Your task to perform on an android device: add a label to a message in the gmail app Image 0: 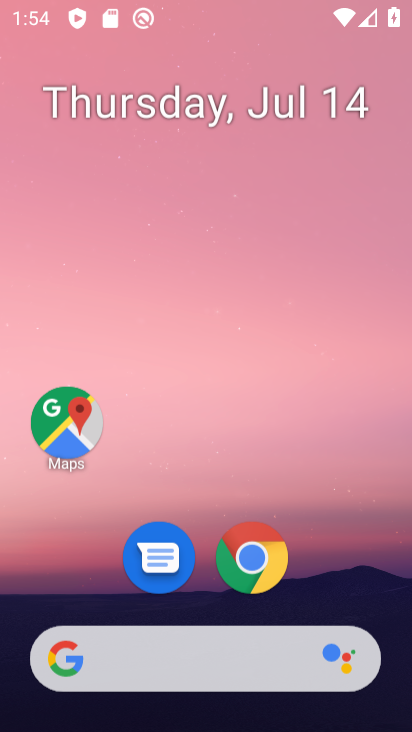
Step 0: click (299, 19)
Your task to perform on an android device: add a label to a message in the gmail app Image 1: 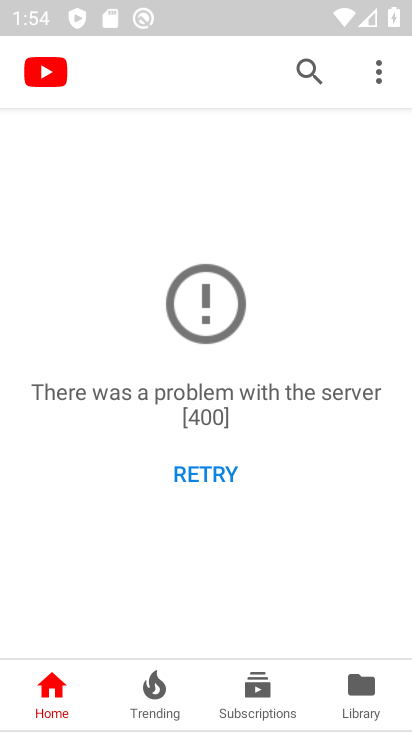
Step 1: press home button
Your task to perform on an android device: add a label to a message in the gmail app Image 2: 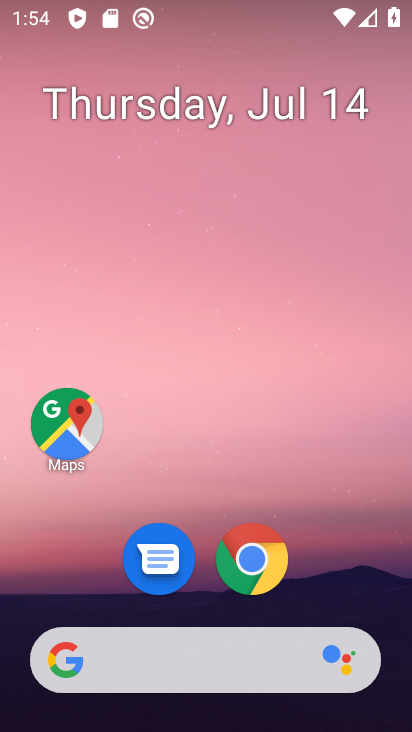
Step 2: drag from (249, 489) to (290, 54)
Your task to perform on an android device: add a label to a message in the gmail app Image 3: 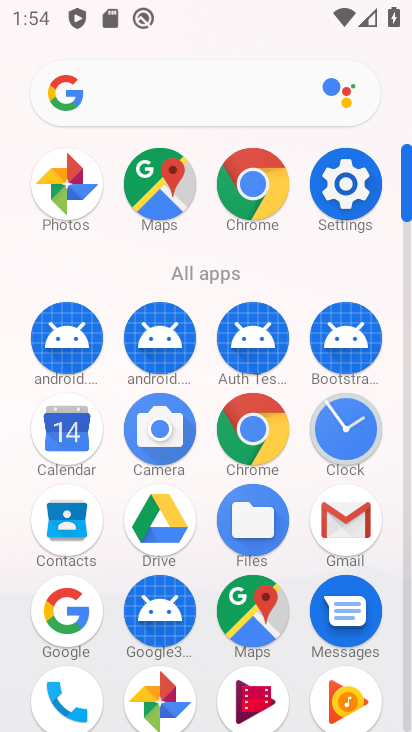
Step 3: click (351, 535)
Your task to perform on an android device: add a label to a message in the gmail app Image 4: 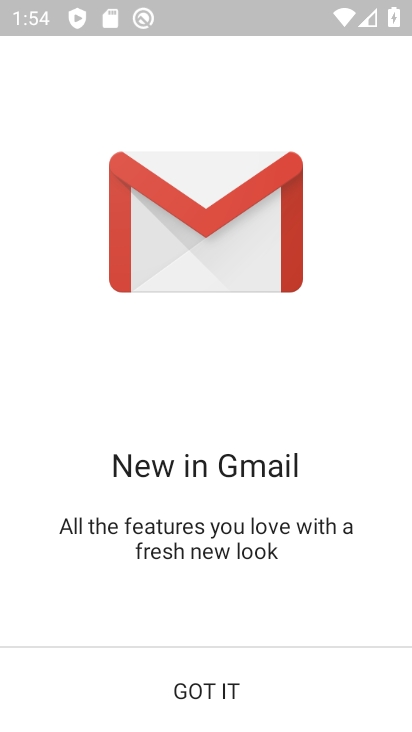
Step 4: click (244, 707)
Your task to perform on an android device: add a label to a message in the gmail app Image 5: 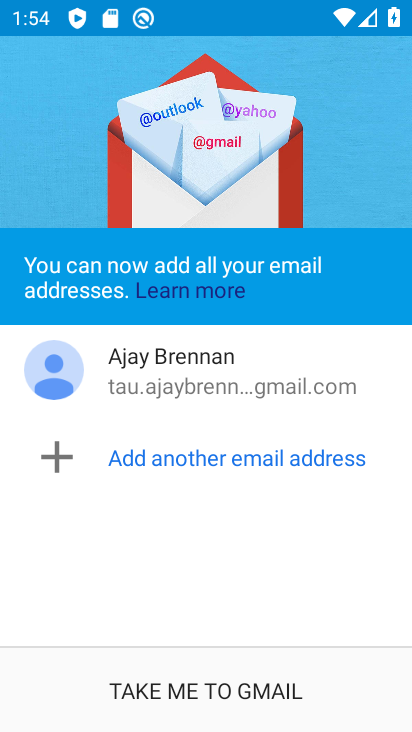
Step 5: click (244, 705)
Your task to perform on an android device: add a label to a message in the gmail app Image 6: 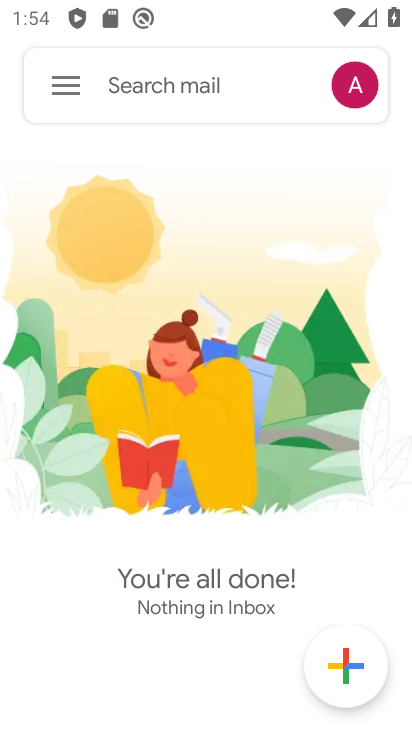
Step 6: click (60, 86)
Your task to perform on an android device: add a label to a message in the gmail app Image 7: 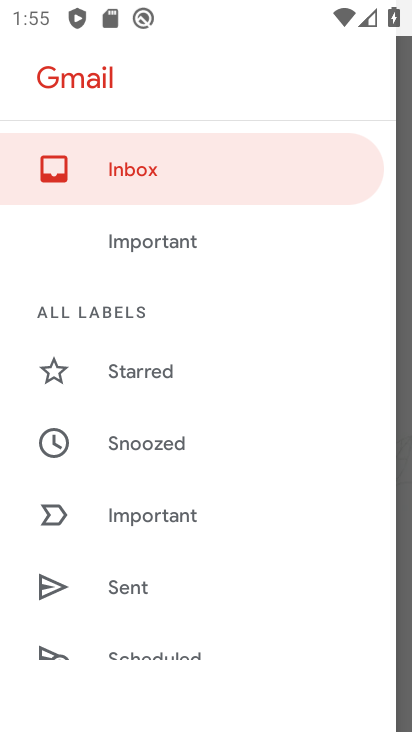
Step 7: drag from (172, 570) to (291, 193)
Your task to perform on an android device: add a label to a message in the gmail app Image 8: 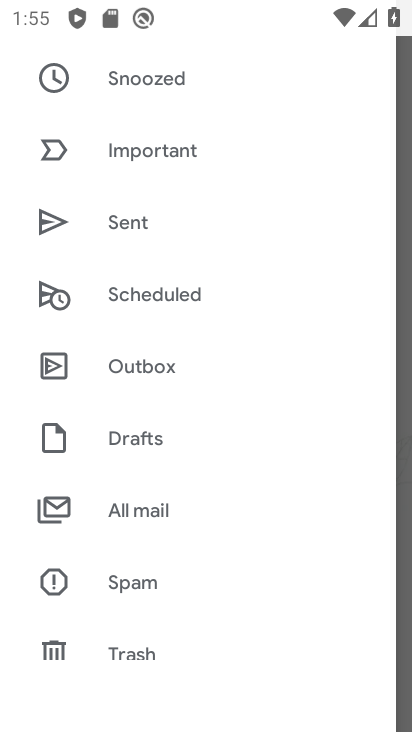
Step 8: drag from (192, 499) to (261, 207)
Your task to perform on an android device: add a label to a message in the gmail app Image 9: 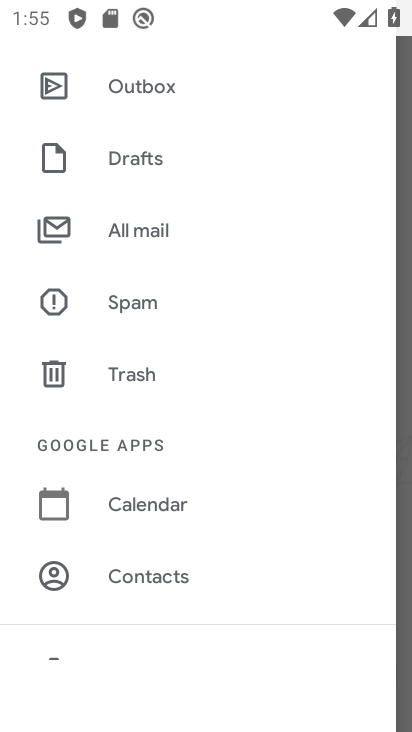
Step 9: click (157, 237)
Your task to perform on an android device: add a label to a message in the gmail app Image 10: 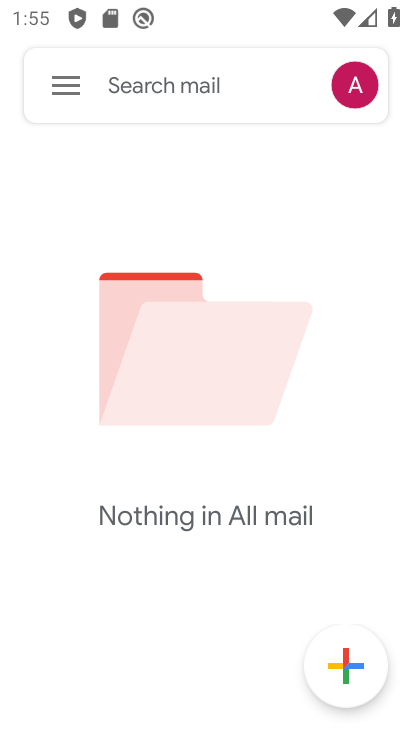
Step 10: drag from (178, 513) to (263, 200)
Your task to perform on an android device: add a label to a message in the gmail app Image 11: 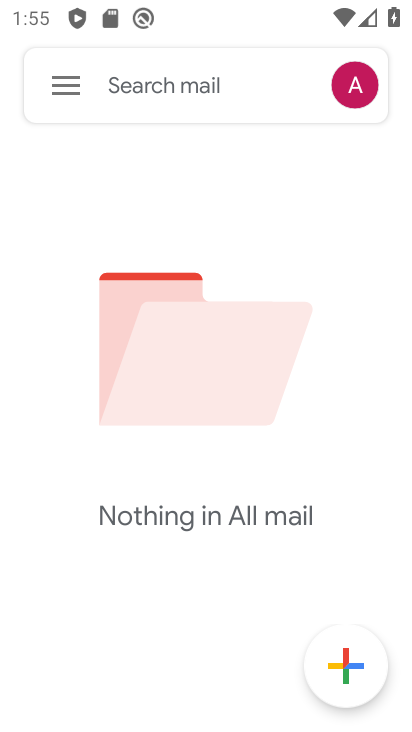
Step 11: click (72, 83)
Your task to perform on an android device: add a label to a message in the gmail app Image 12: 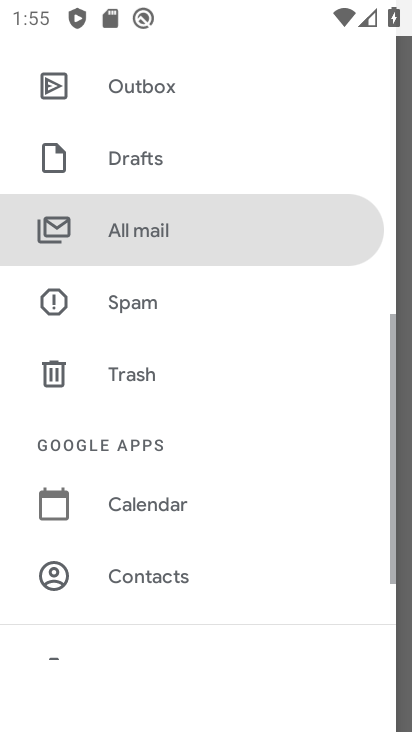
Step 12: task complete